Your task to perform on an android device: turn on the 24-hour format for clock Image 0: 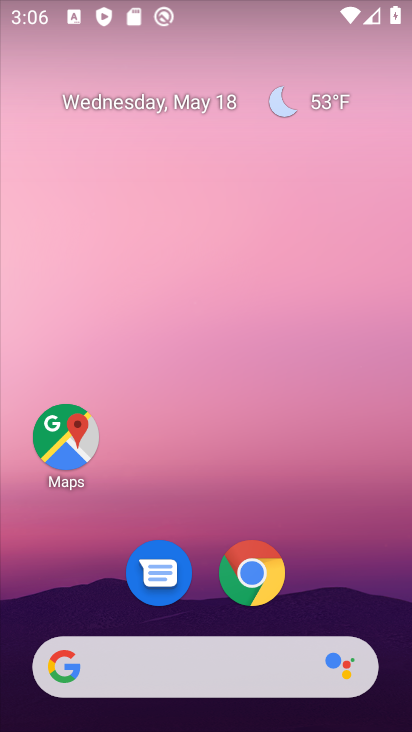
Step 0: drag from (201, 612) to (196, 210)
Your task to perform on an android device: turn on the 24-hour format for clock Image 1: 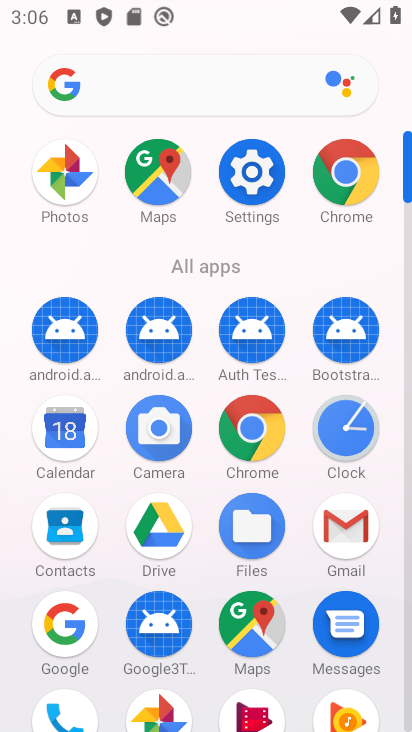
Step 1: click (338, 422)
Your task to perform on an android device: turn on the 24-hour format for clock Image 2: 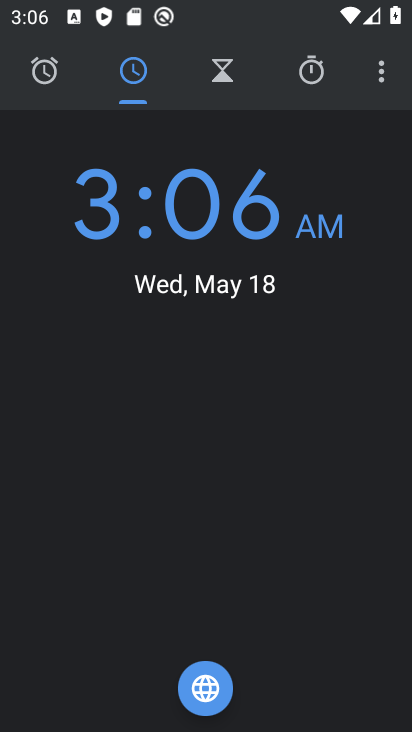
Step 2: click (384, 82)
Your task to perform on an android device: turn on the 24-hour format for clock Image 3: 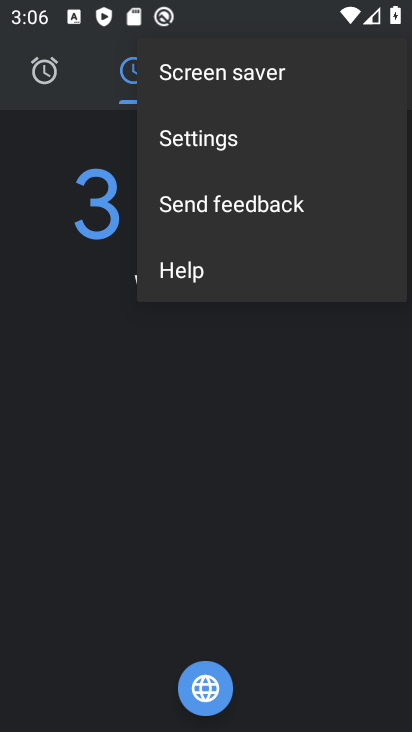
Step 3: click (228, 145)
Your task to perform on an android device: turn on the 24-hour format for clock Image 4: 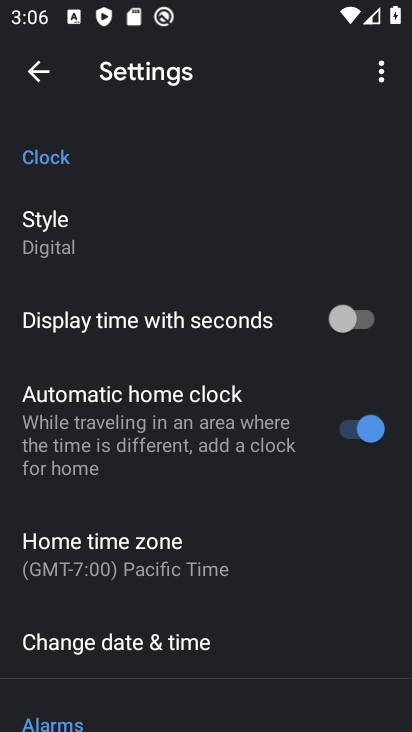
Step 4: click (200, 639)
Your task to perform on an android device: turn on the 24-hour format for clock Image 5: 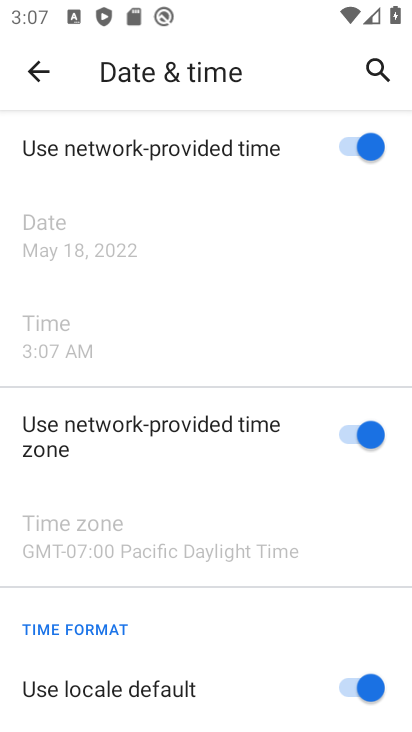
Step 5: drag from (285, 539) to (306, 286)
Your task to perform on an android device: turn on the 24-hour format for clock Image 6: 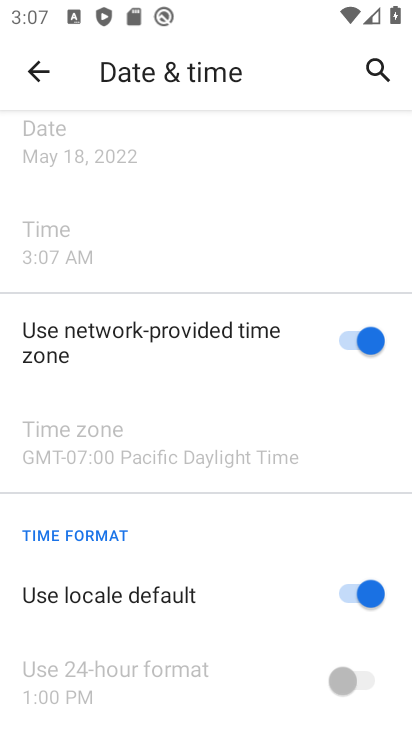
Step 6: click (346, 585)
Your task to perform on an android device: turn on the 24-hour format for clock Image 7: 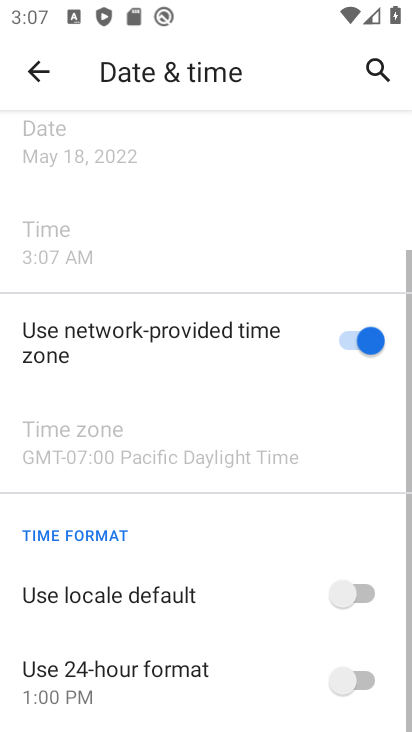
Step 7: click (367, 677)
Your task to perform on an android device: turn on the 24-hour format for clock Image 8: 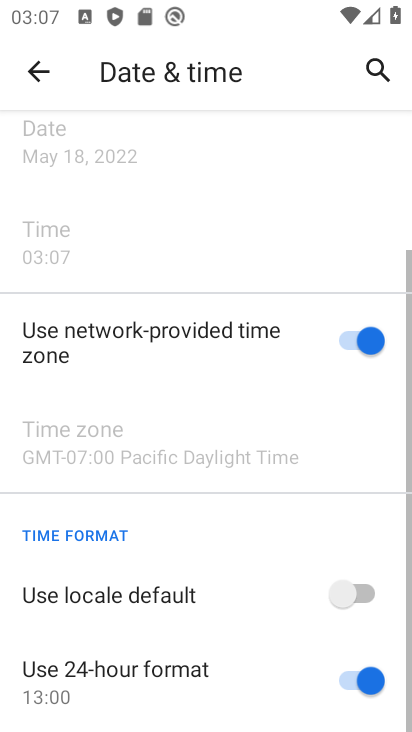
Step 8: task complete